Your task to perform on an android device: turn on airplane mode Image 0: 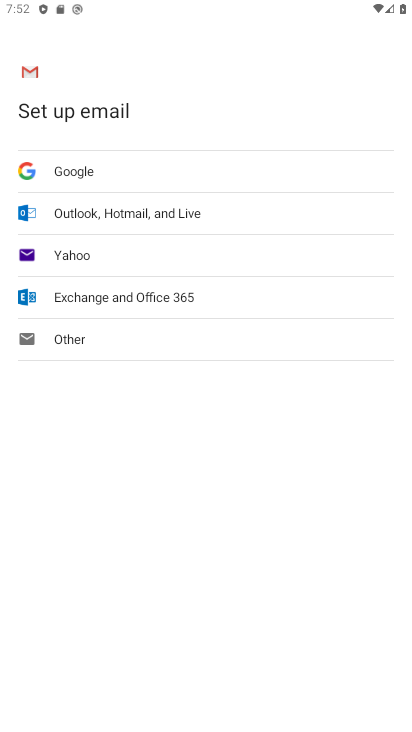
Step 0: press home button
Your task to perform on an android device: turn on airplane mode Image 1: 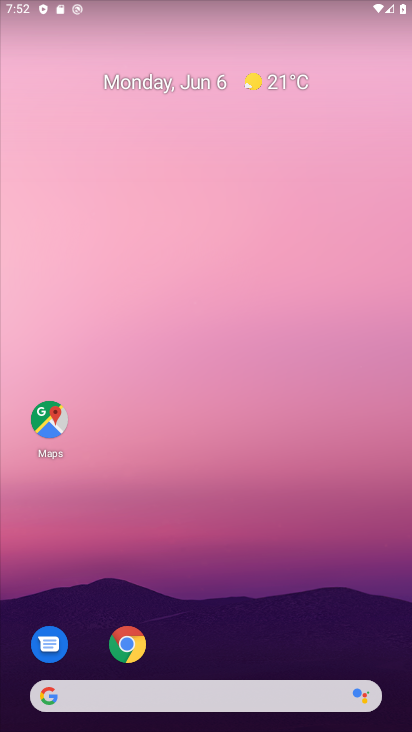
Step 1: drag from (216, 670) to (211, 138)
Your task to perform on an android device: turn on airplane mode Image 2: 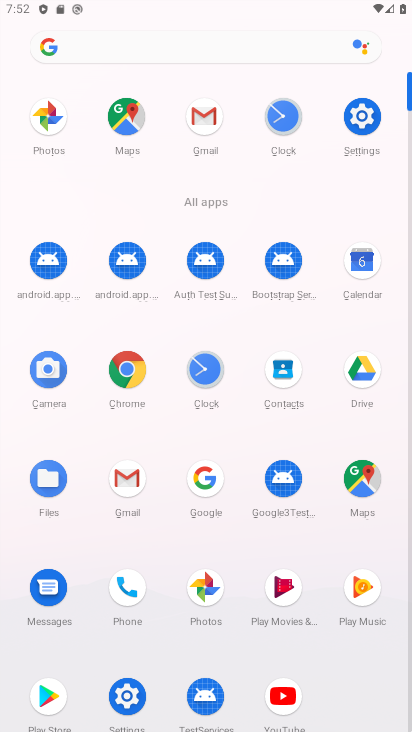
Step 2: click (357, 141)
Your task to perform on an android device: turn on airplane mode Image 3: 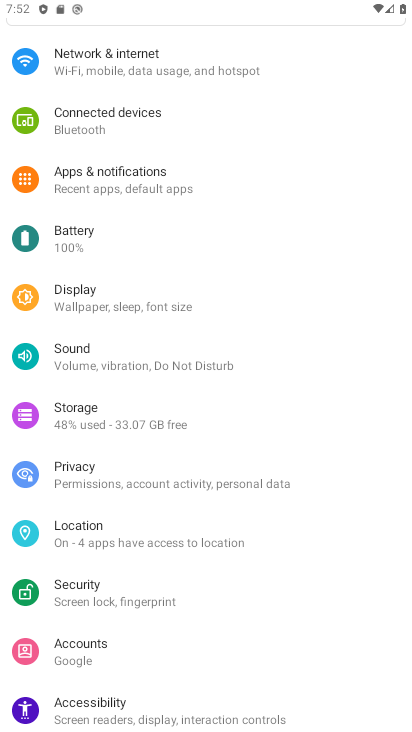
Step 3: drag from (137, 147) to (147, 482)
Your task to perform on an android device: turn on airplane mode Image 4: 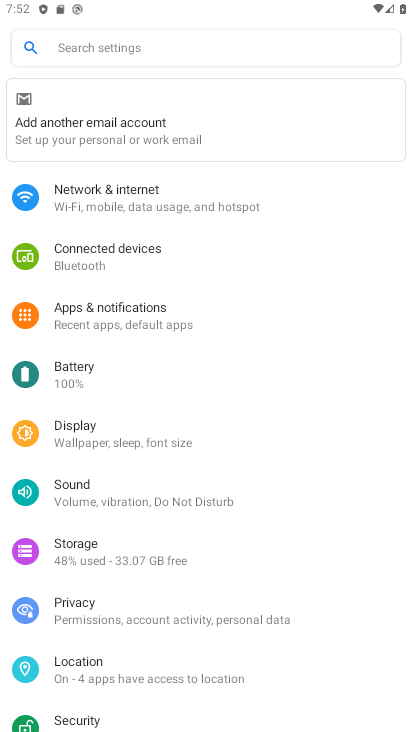
Step 4: click (96, 216)
Your task to perform on an android device: turn on airplane mode Image 5: 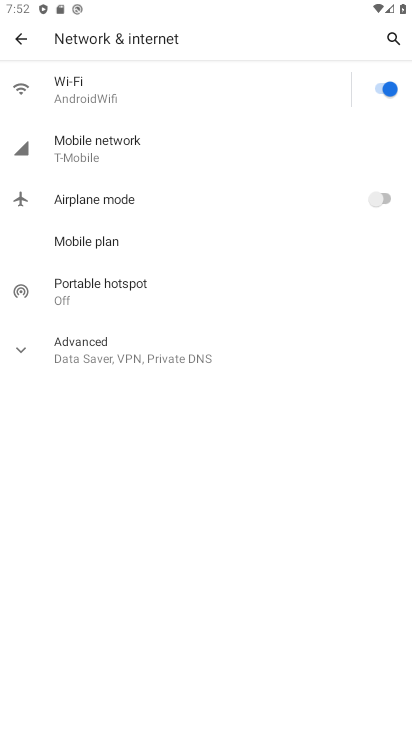
Step 5: press home button
Your task to perform on an android device: turn on airplane mode Image 6: 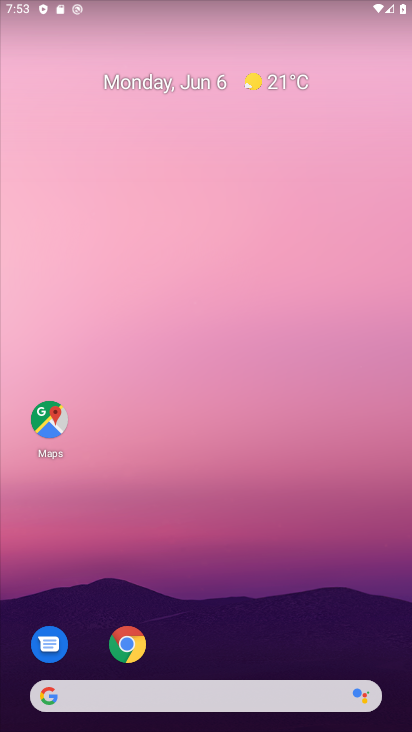
Step 6: drag from (187, 659) to (136, 2)
Your task to perform on an android device: turn on airplane mode Image 7: 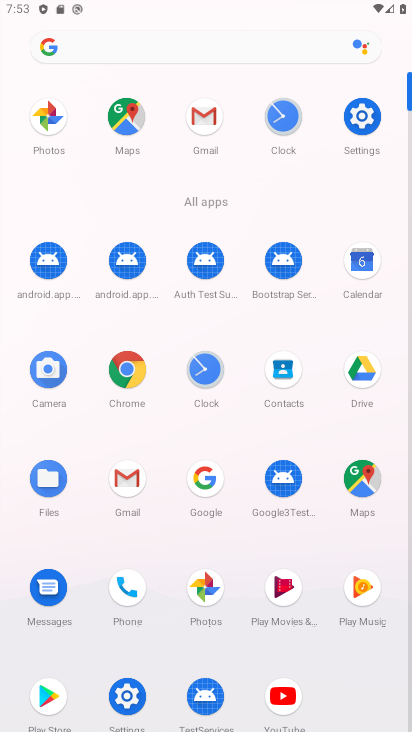
Step 7: click (367, 110)
Your task to perform on an android device: turn on airplane mode Image 8: 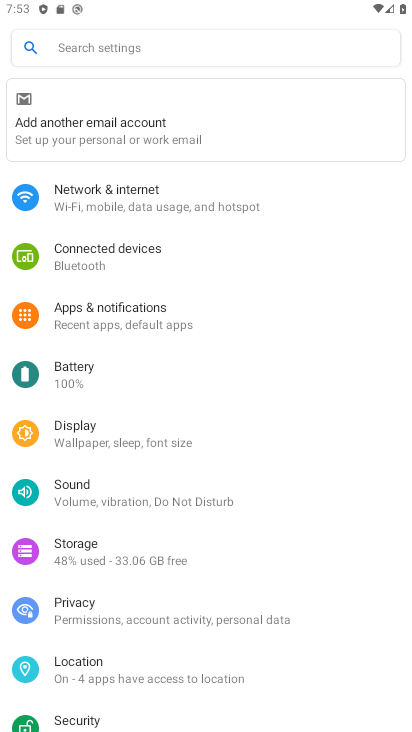
Step 8: click (168, 201)
Your task to perform on an android device: turn on airplane mode Image 9: 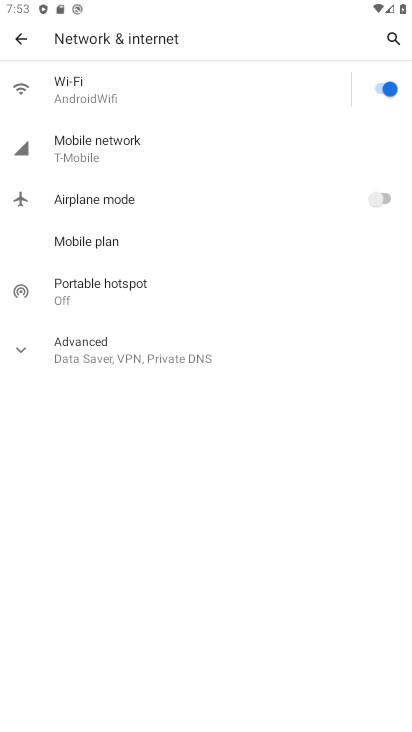
Step 9: click (63, 198)
Your task to perform on an android device: turn on airplane mode Image 10: 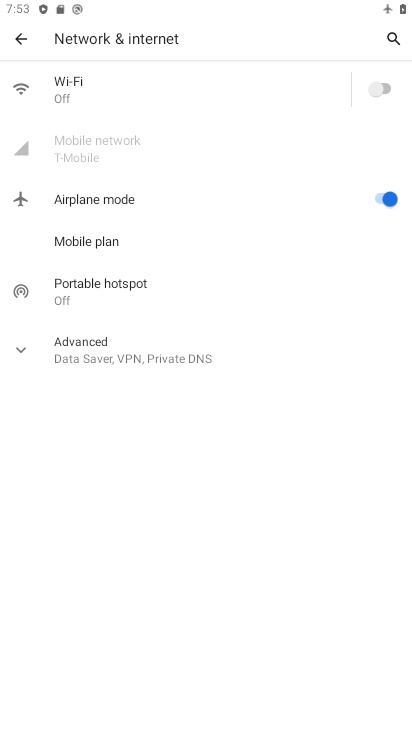
Step 10: task complete